Your task to perform on an android device: Go to Yahoo.com Image 0: 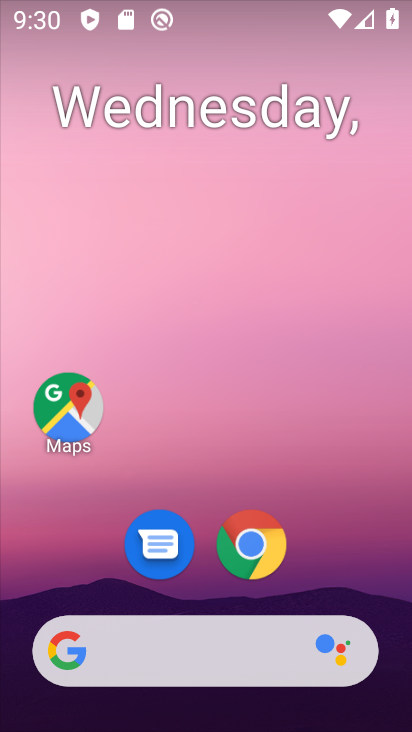
Step 0: click (249, 552)
Your task to perform on an android device: Go to Yahoo.com Image 1: 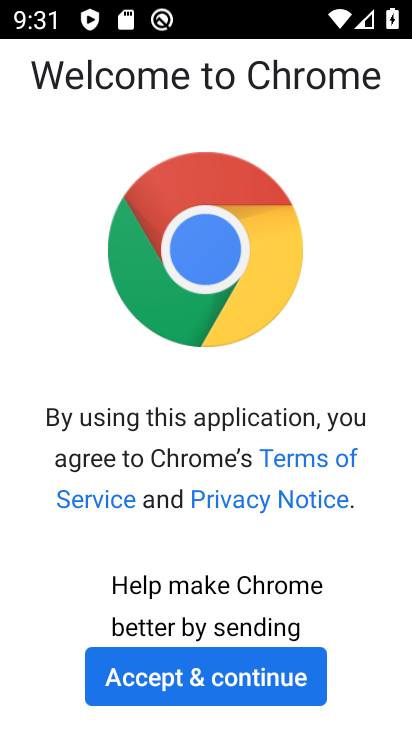
Step 1: click (226, 679)
Your task to perform on an android device: Go to Yahoo.com Image 2: 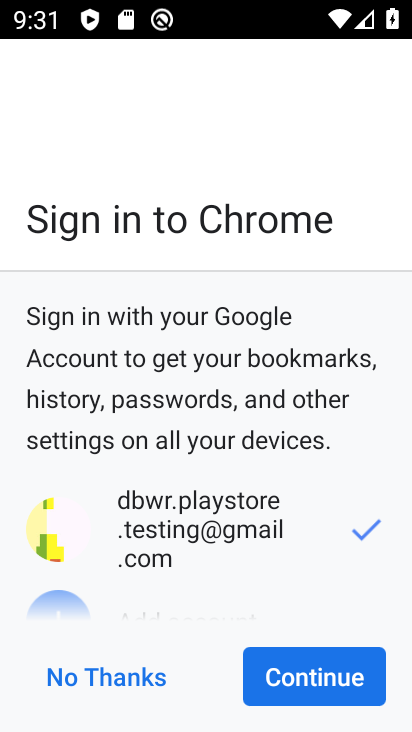
Step 2: click (279, 688)
Your task to perform on an android device: Go to Yahoo.com Image 3: 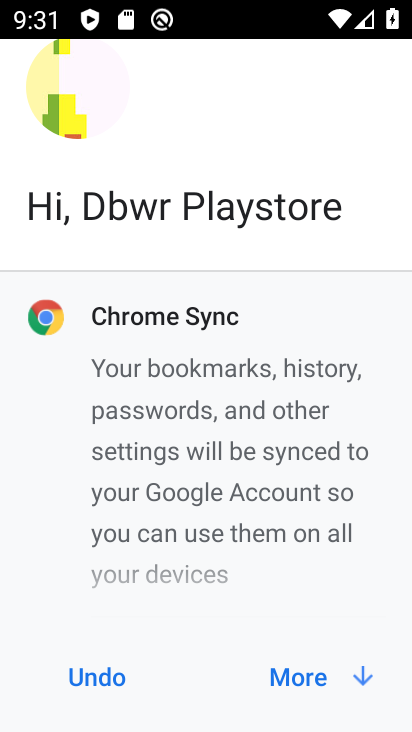
Step 3: click (279, 688)
Your task to perform on an android device: Go to Yahoo.com Image 4: 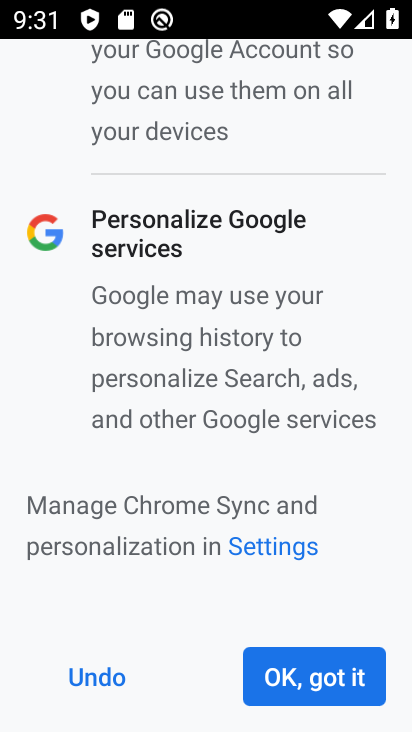
Step 4: click (279, 688)
Your task to perform on an android device: Go to Yahoo.com Image 5: 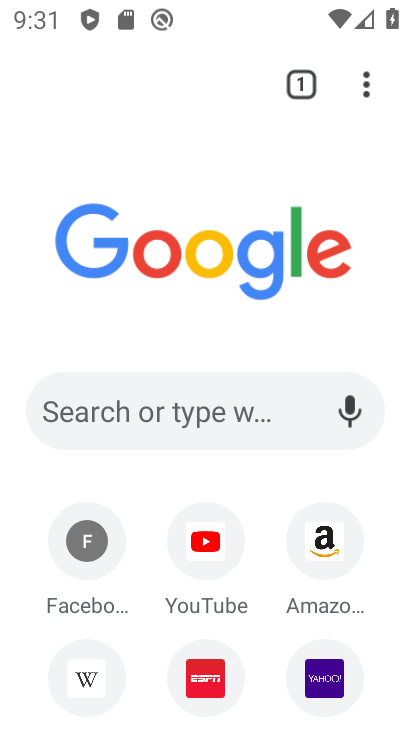
Step 5: click (331, 670)
Your task to perform on an android device: Go to Yahoo.com Image 6: 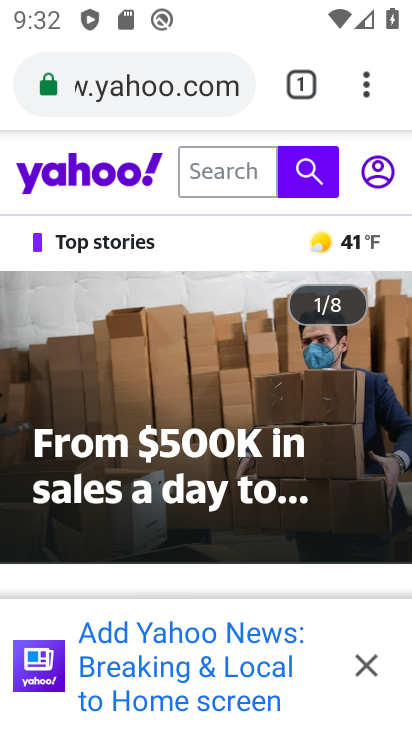
Step 6: task complete